Your task to perform on an android device: Open accessibility settings Image 0: 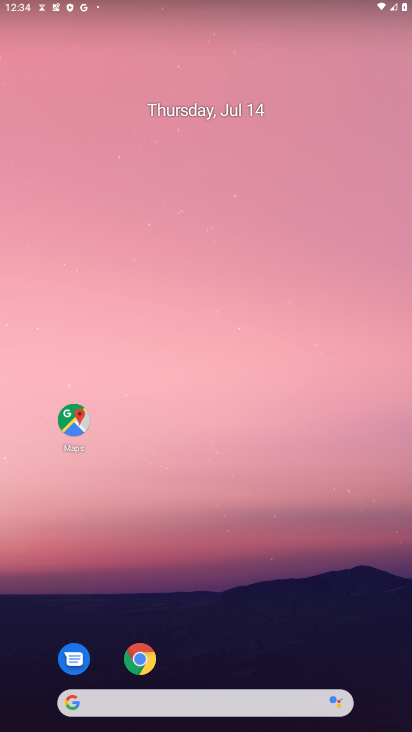
Step 0: click (377, 3)
Your task to perform on an android device: Open accessibility settings Image 1: 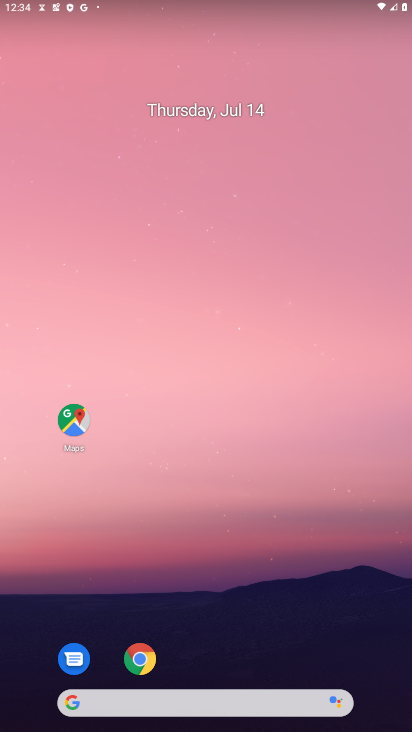
Step 1: drag from (59, 619) to (262, 175)
Your task to perform on an android device: Open accessibility settings Image 2: 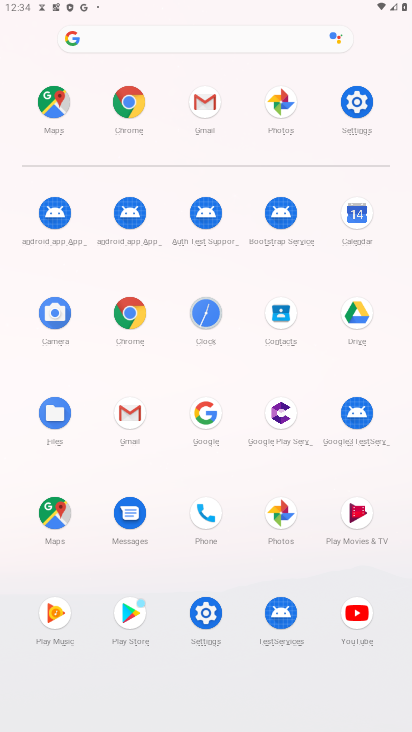
Step 2: click (203, 624)
Your task to perform on an android device: Open accessibility settings Image 3: 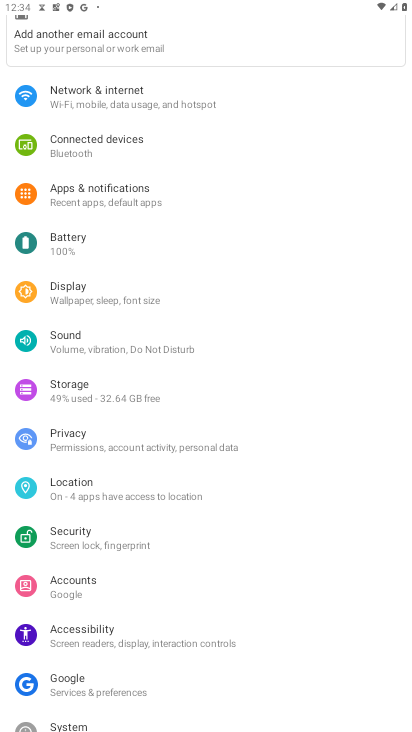
Step 3: click (99, 624)
Your task to perform on an android device: Open accessibility settings Image 4: 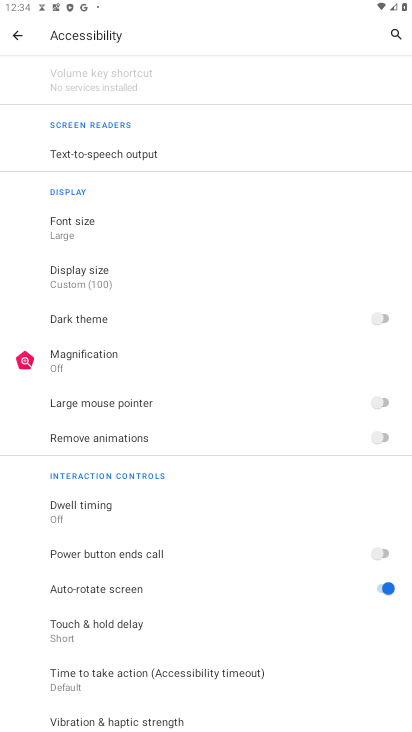
Step 4: task complete